Your task to perform on an android device: Open my contact list Image 0: 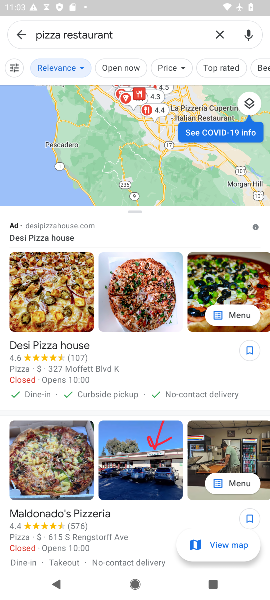
Step 0: press back button
Your task to perform on an android device: Open my contact list Image 1: 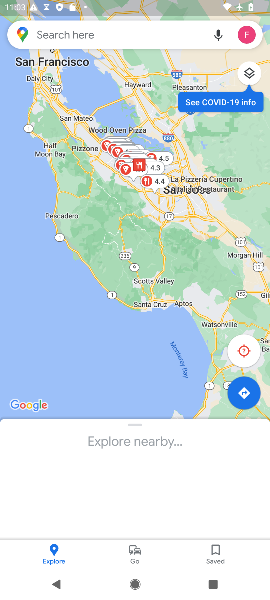
Step 1: press home button
Your task to perform on an android device: Open my contact list Image 2: 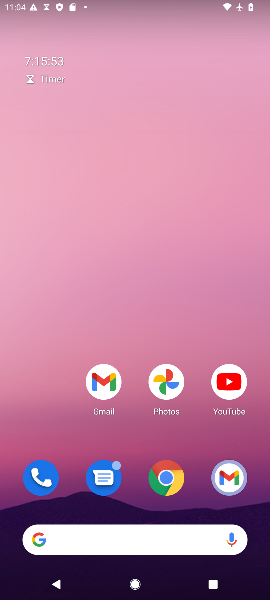
Step 2: drag from (198, 350) to (147, 4)
Your task to perform on an android device: Open my contact list Image 3: 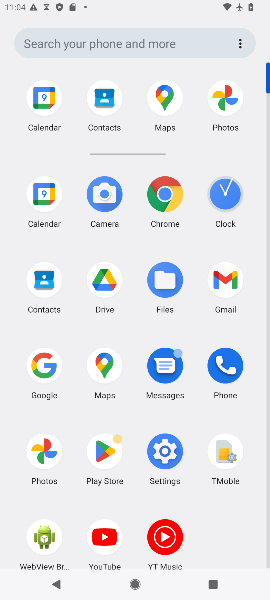
Step 3: click (103, 99)
Your task to perform on an android device: Open my contact list Image 4: 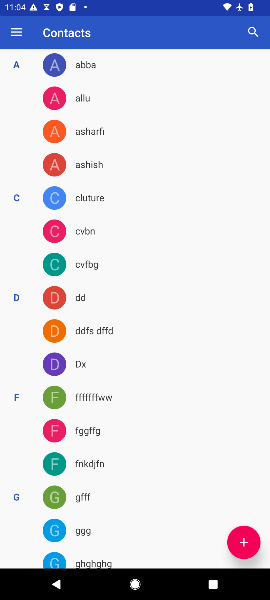
Step 4: task complete